Your task to perform on an android device: Open network settings Image 0: 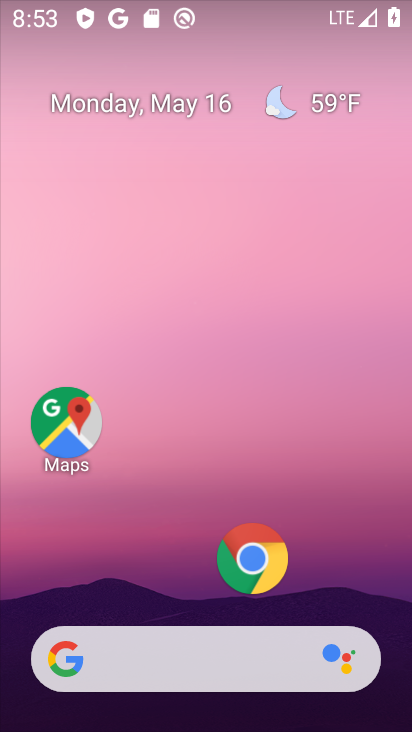
Step 0: drag from (157, 546) to (246, 80)
Your task to perform on an android device: Open network settings Image 1: 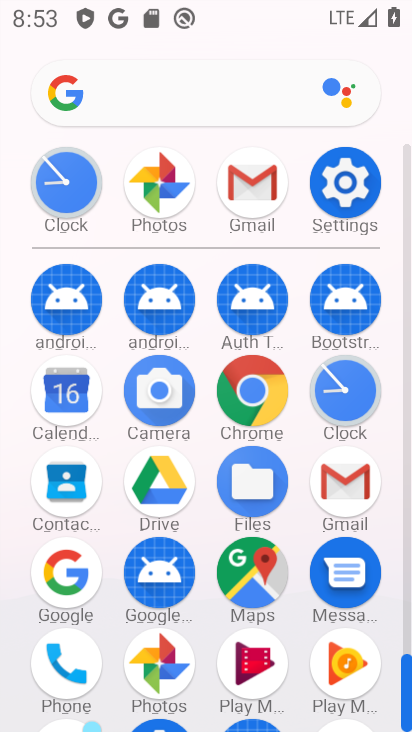
Step 1: click (324, 183)
Your task to perform on an android device: Open network settings Image 2: 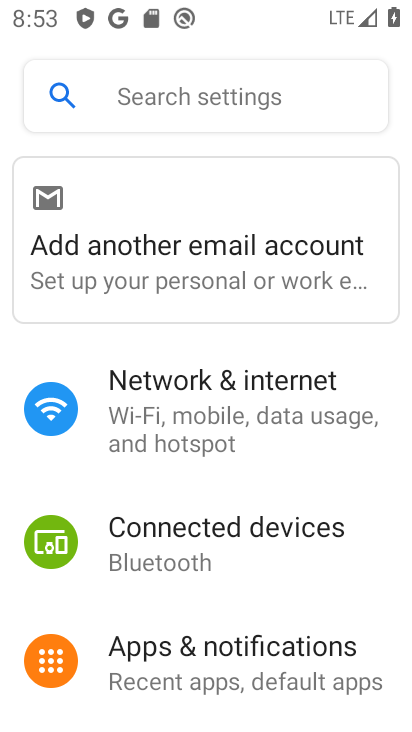
Step 2: click (211, 399)
Your task to perform on an android device: Open network settings Image 3: 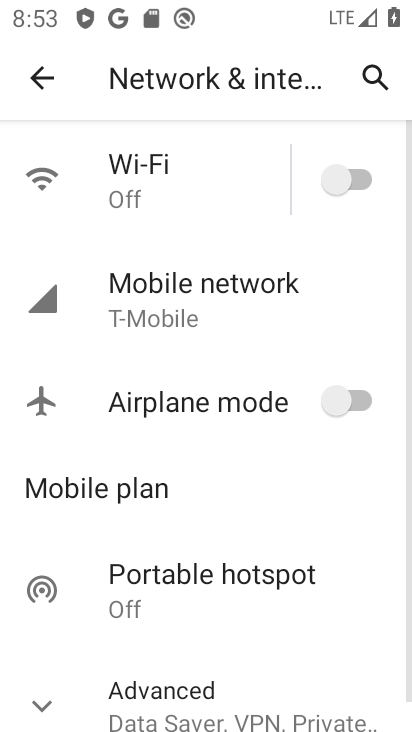
Step 3: task complete